Your task to perform on an android device: Is it going to rain tomorrow? Image 0: 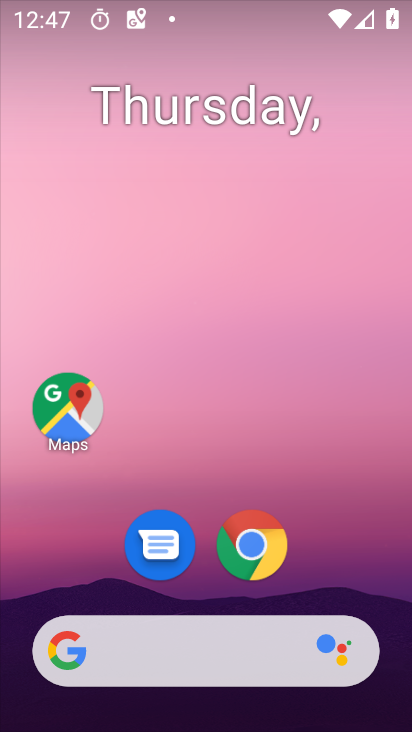
Step 0: click (198, 650)
Your task to perform on an android device: Is it going to rain tomorrow? Image 1: 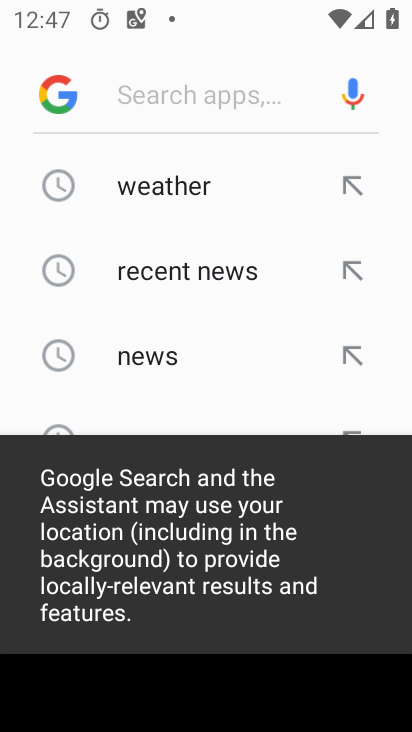
Step 1: click (135, 359)
Your task to perform on an android device: Is it going to rain tomorrow? Image 2: 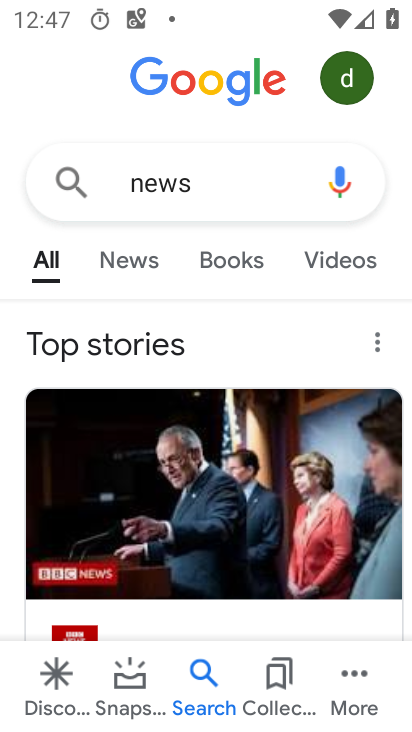
Step 2: press back button
Your task to perform on an android device: Is it going to rain tomorrow? Image 3: 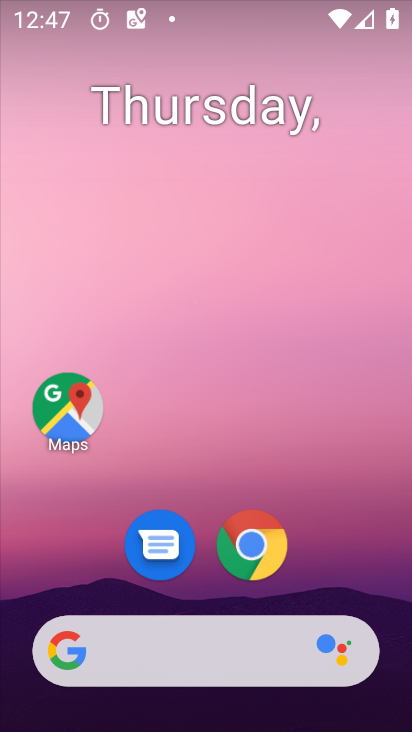
Step 3: click (113, 633)
Your task to perform on an android device: Is it going to rain tomorrow? Image 4: 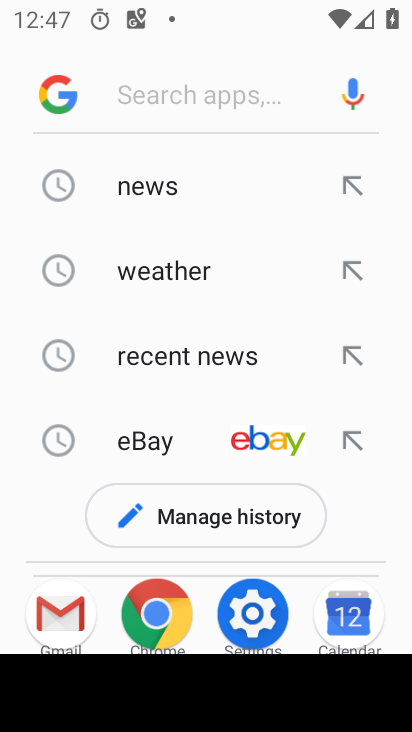
Step 4: click (128, 264)
Your task to perform on an android device: Is it going to rain tomorrow? Image 5: 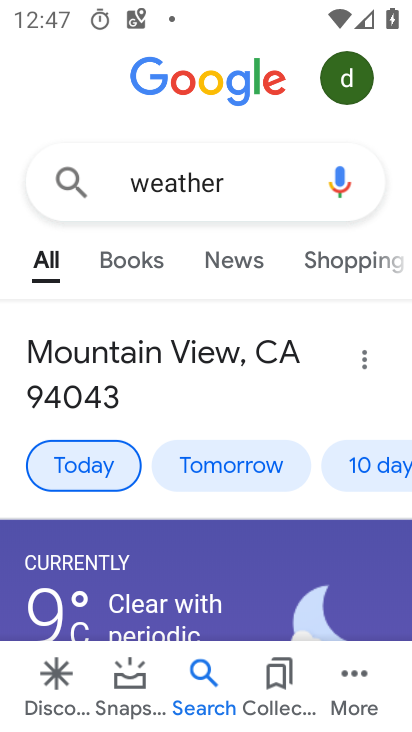
Step 5: click (232, 463)
Your task to perform on an android device: Is it going to rain tomorrow? Image 6: 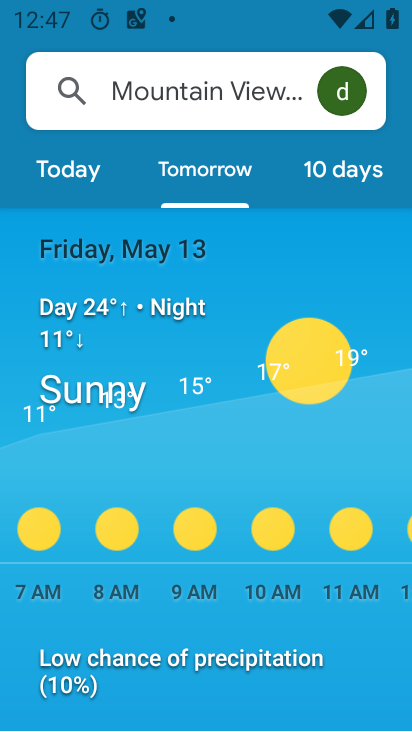
Step 6: task complete